Your task to perform on an android device: Open eBay Image 0: 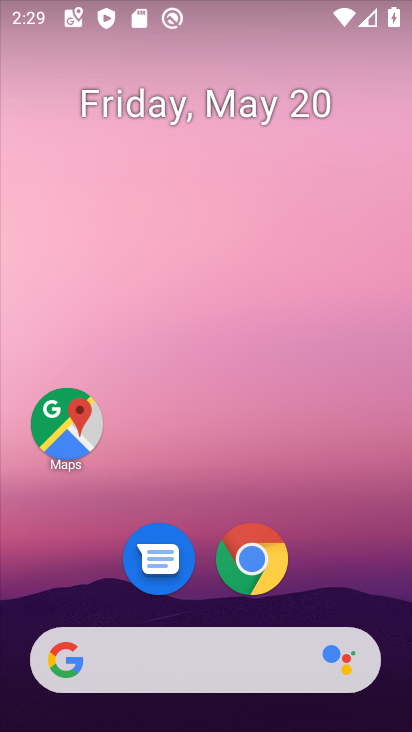
Step 0: click (226, 665)
Your task to perform on an android device: Open eBay Image 1: 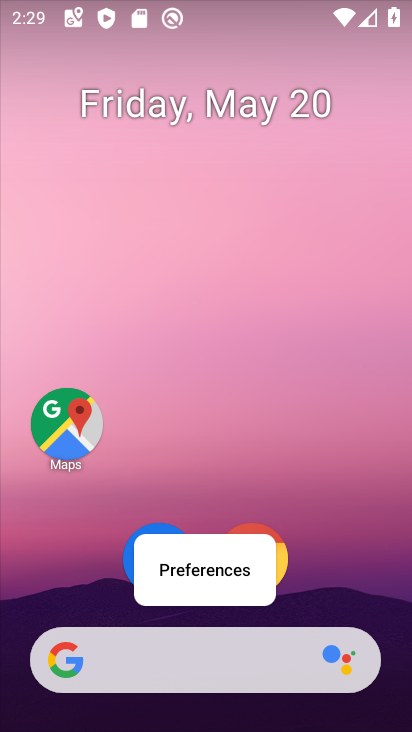
Step 1: click (174, 671)
Your task to perform on an android device: Open eBay Image 2: 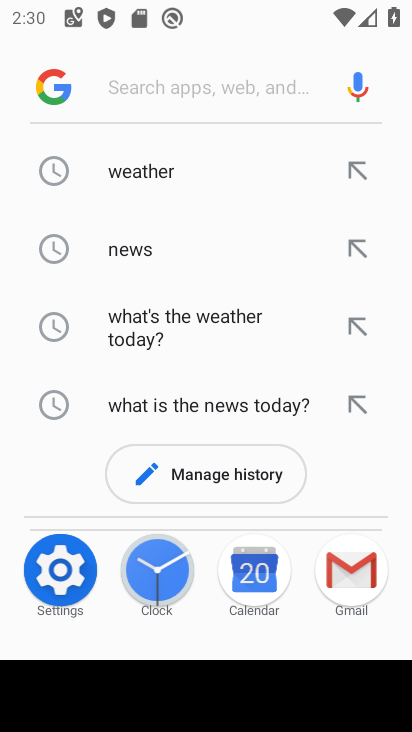
Step 2: type "ebay"
Your task to perform on an android device: Open eBay Image 3: 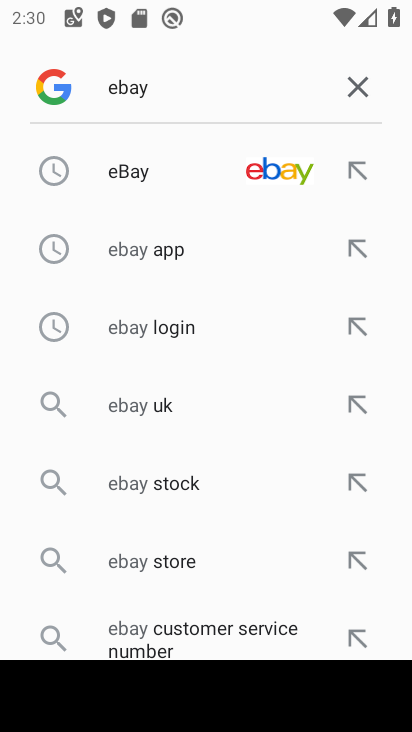
Step 3: click (132, 168)
Your task to perform on an android device: Open eBay Image 4: 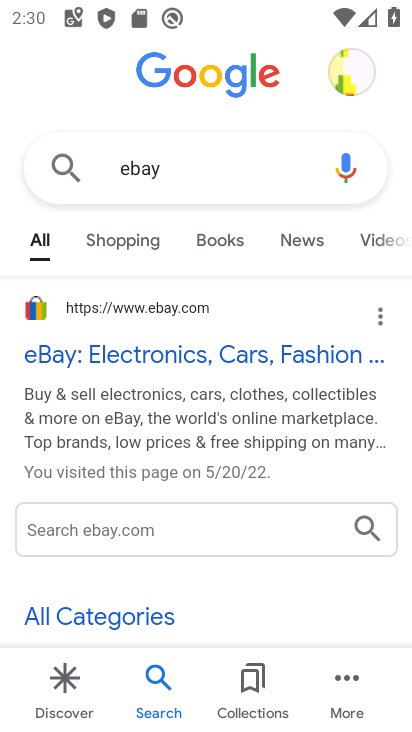
Step 4: click (52, 354)
Your task to perform on an android device: Open eBay Image 5: 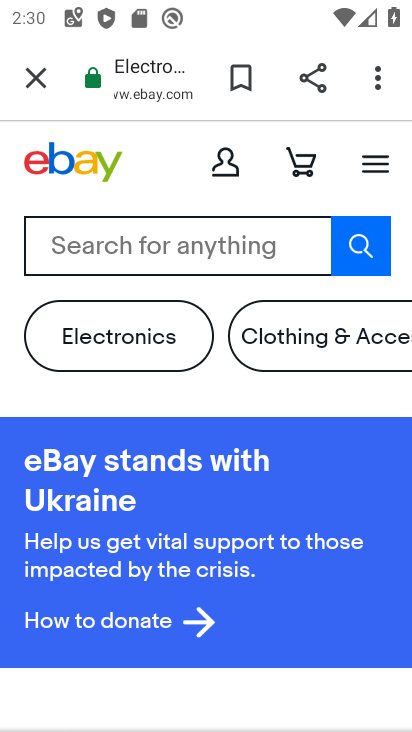
Step 5: task complete